Your task to perform on an android device: Open network settings Image 0: 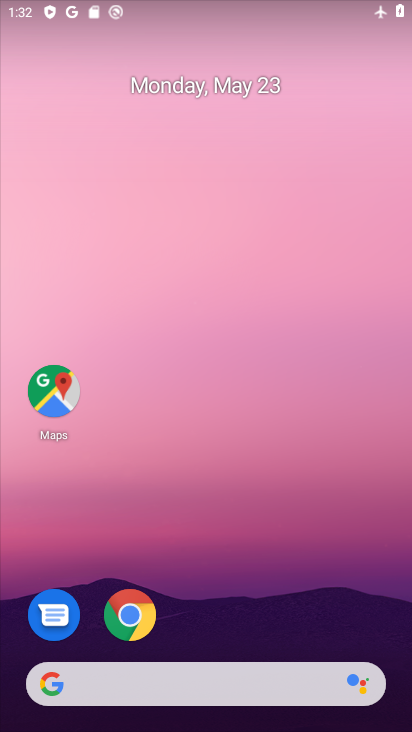
Step 0: drag from (241, 645) to (113, 105)
Your task to perform on an android device: Open network settings Image 1: 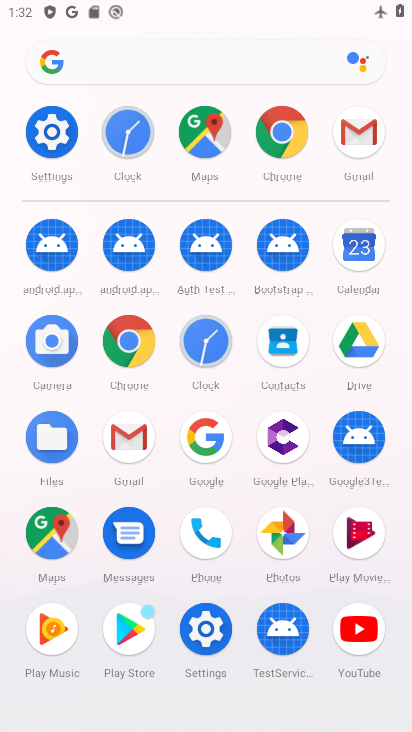
Step 1: click (48, 121)
Your task to perform on an android device: Open network settings Image 2: 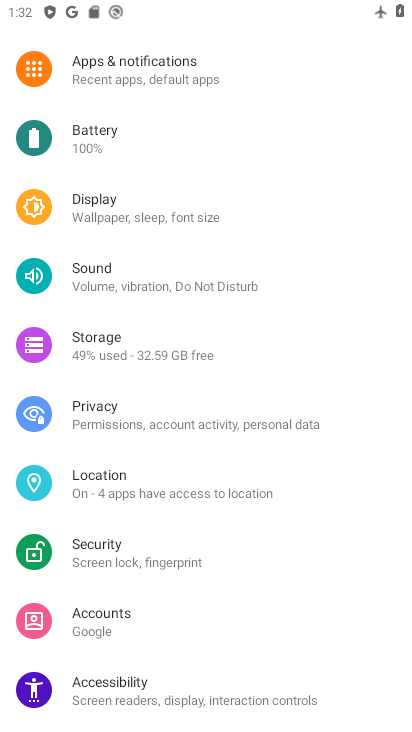
Step 2: drag from (48, 121) to (92, 423)
Your task to perform on an android device: Open network settings Image 3: 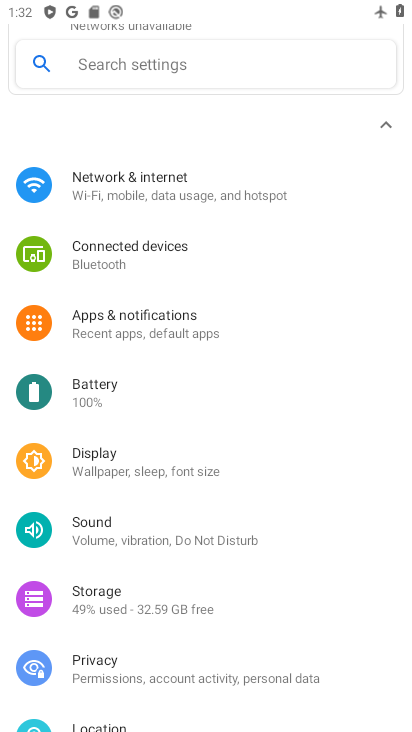
Step 3: click (210, 199)
Your task to perform on an android device: Open network settings Image 4: 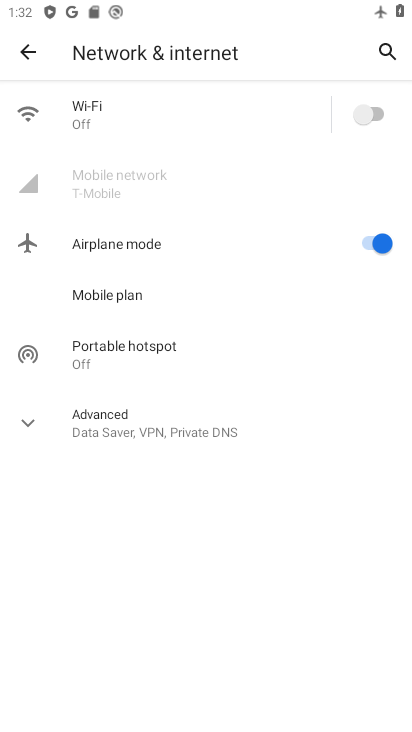
Step 4: click (83, 455)
Your task to perform on an android device: Open network settings Image 5: 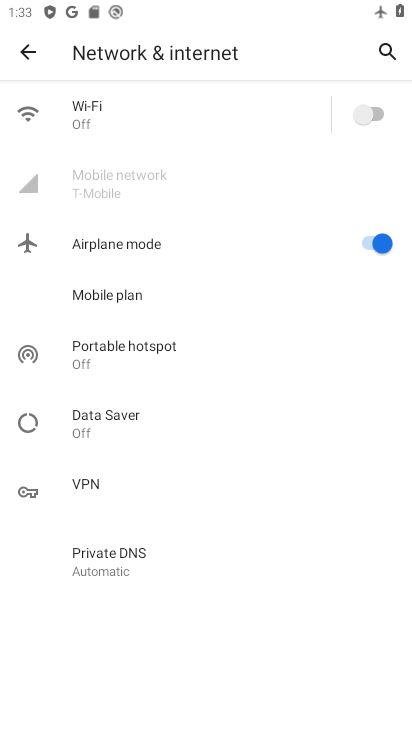
Step 5: task complete